Your task to perform on an android device: turn notification dots on Image 0: 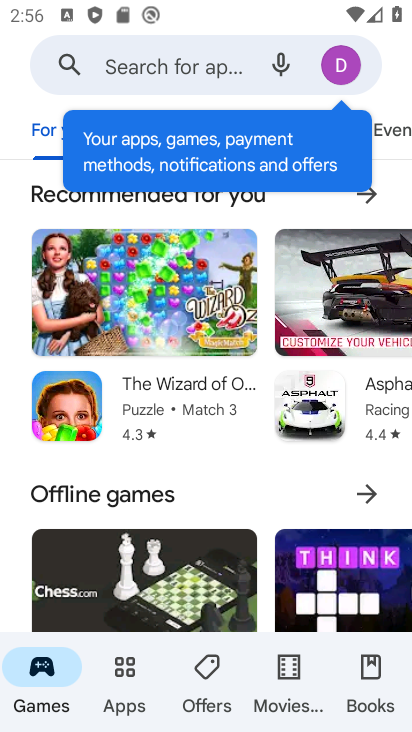
Step 0: press back button
Your task to perform on an android device: turn notification dots on Image 1: 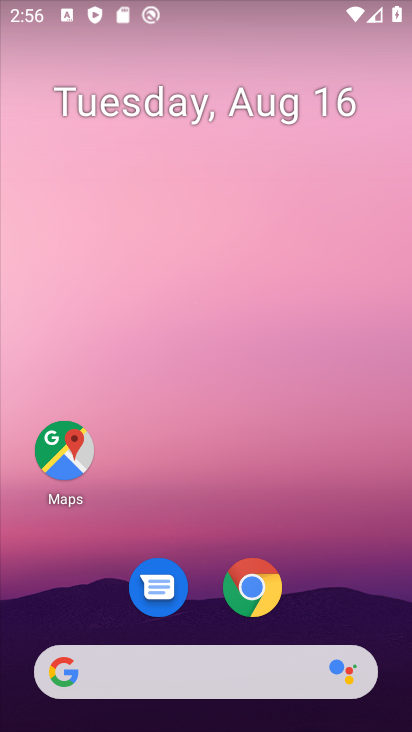
Step 1: drag from (217, 543) to (237, 108)
Your task to perform on an android device: turn notification dots on Image 2: 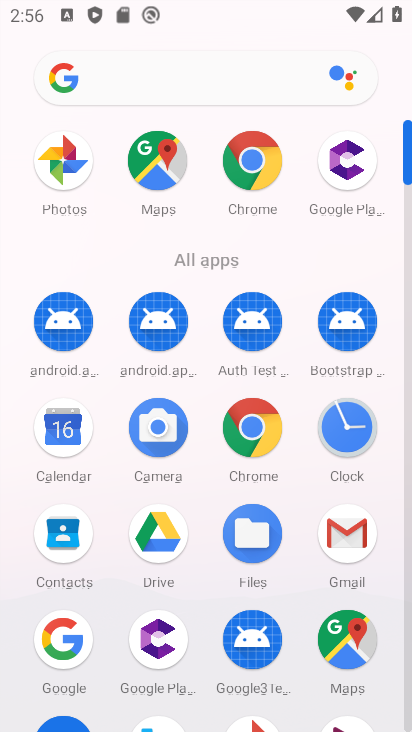
Step 2: drag from (225, 645) to (328, 38)
Your task to perform on an android device: turn notification dots on Image 3: 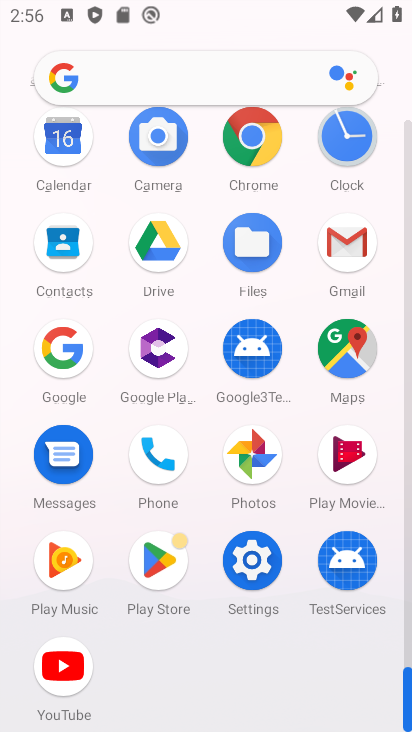
Step 3: click (245, 571)
Your task to perform on an android device: turn notification dots on Image 4: 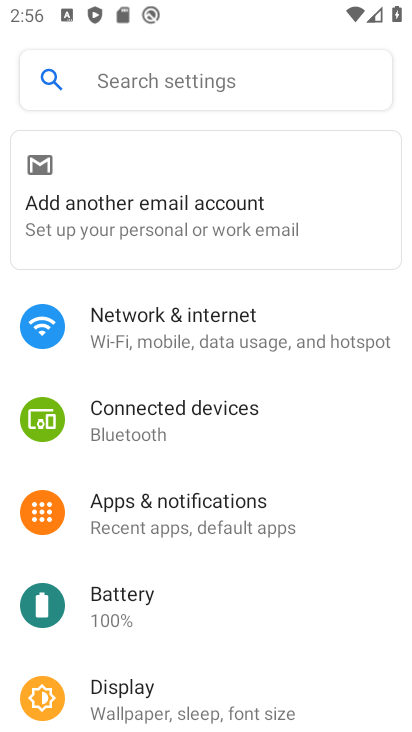
Step 4: click (237, 523)
Your task to perform on an android device: turn notification dots on Image 5: 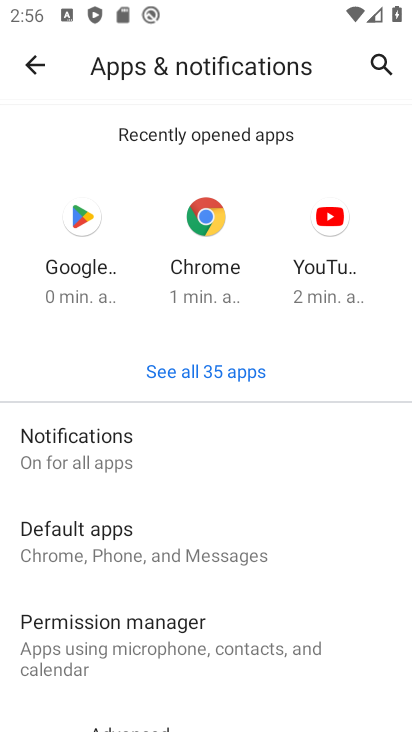
Step 5: click (90, 434)
Your task to perform on an android device: turn notification dots on Image 6: 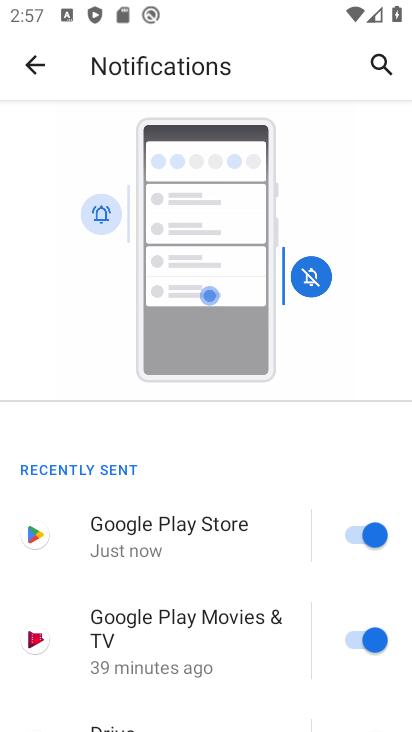
Step 6: drag from (221, 677) to (262, 128)
Your task to perform on an android device: turn notification dots on Image 7: 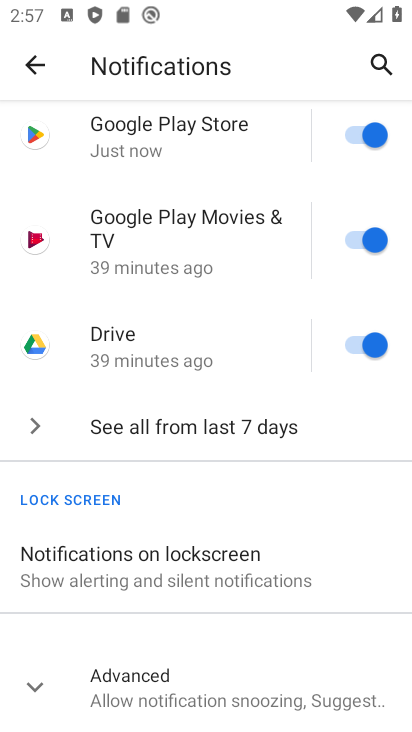
Step 7: click (158, 687)
Your task to perform on an android device: turn notification dots on Image 8: 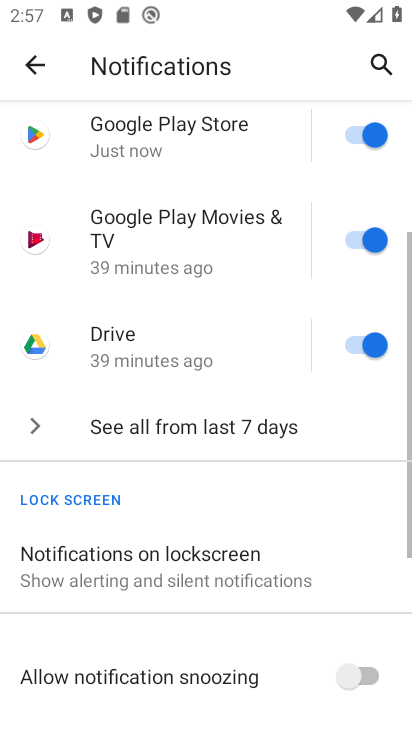
Step 8: task complete